Your task to perform on an android device: toggle show notifications on the lock screen Image 0: 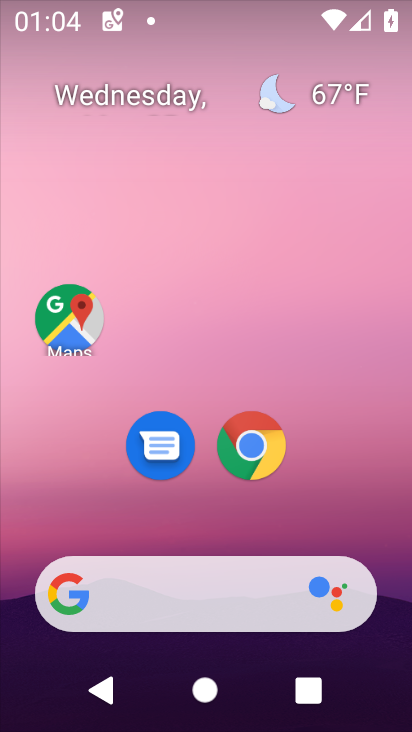
Step 0: drag from (369, 547) to (306, 107)
Your task to perform on an android device: toggle show notifications on the lock screen Image 1: 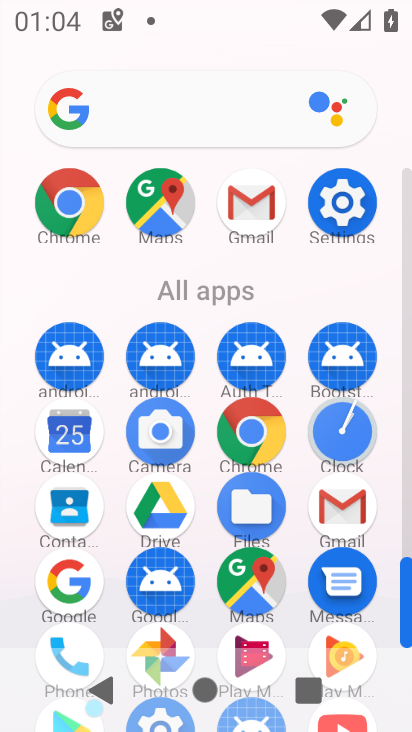
Step 1: click (349, 216)
Your task to perform on an android device: toggle show notifications on the lock screen Image 2: 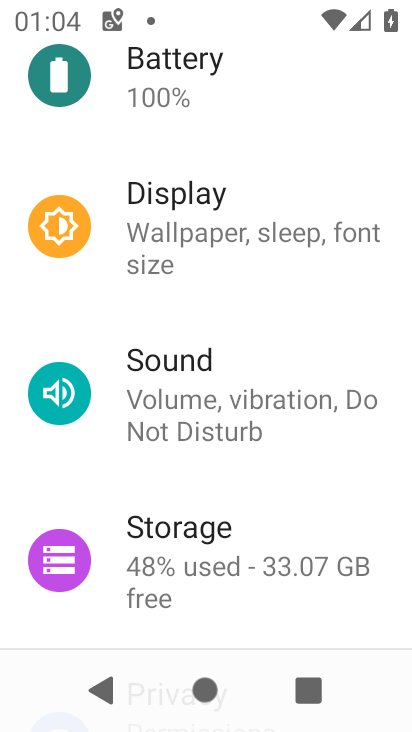
Step 2: drag from (300, 173) to (313, 530)
Your task to perform on an android device: toggle show notifications on the lock screen Image 3: 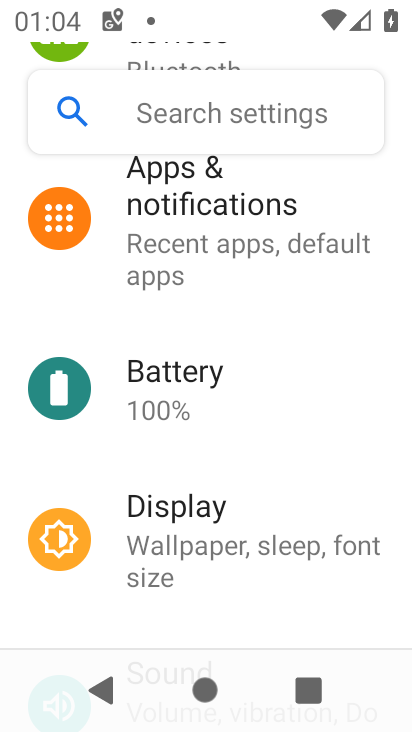
Step 3: drag from (266, 287) to (281, 576)
Your task to perform on an android device: toggle show notifications on the lock screen Image 4: 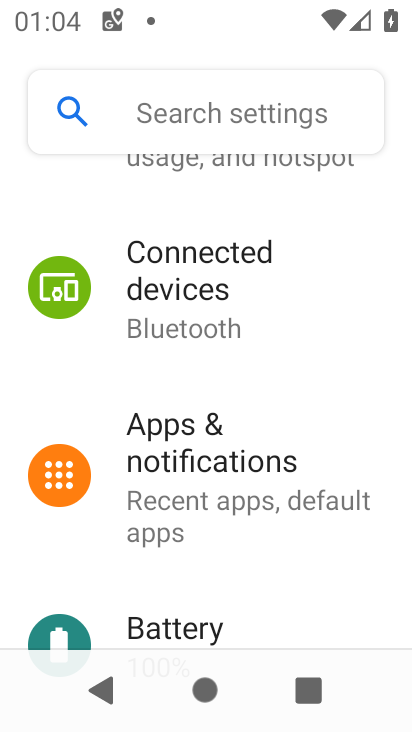
Step 4: drag from (243, 367) to (258, 628)
Your task to perform on an android device: toggle show notifications on the lock screen Image 5: 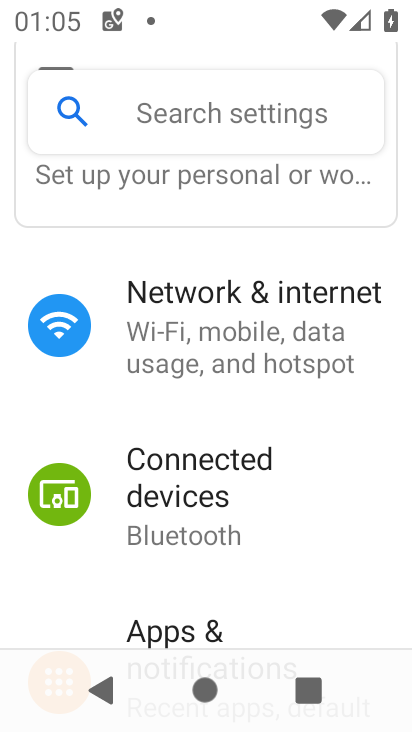
Step 5: drag from (245, 619) to (209, 424)
Your task to perform on an android device: toggle show notifications on the lock screen Image 6: 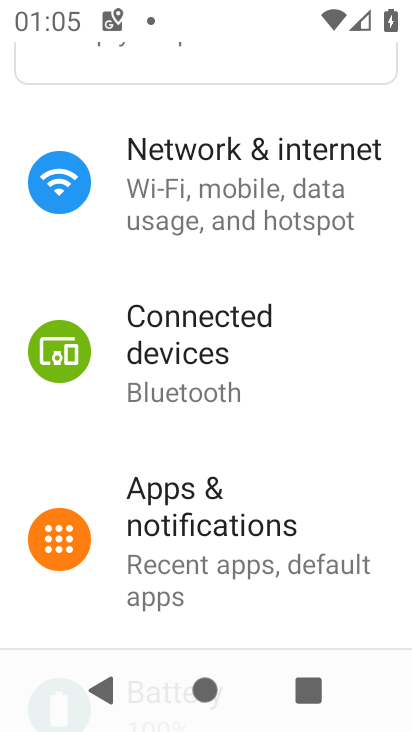
Step 6: click (242, 515)
Your task to perform on an android device: toggle show notifications on the lock screen Image 7: 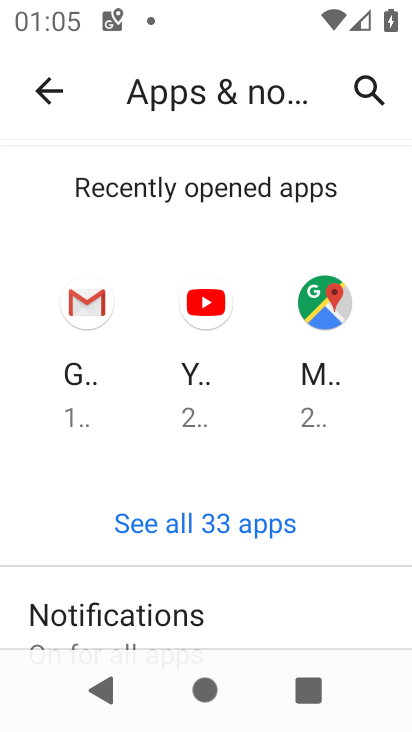
Step 7: drag from (279, 587) to (246, 305)
Your task to perform on an android device: toggle show notifications on the lock screen Image 8: 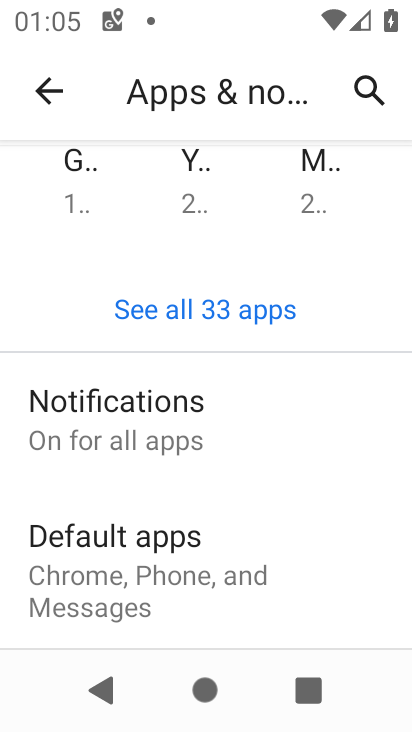
Step 8: click (252, 418)
Your task to perform on an android device: toggle show notifications on the lock screen Image 9: 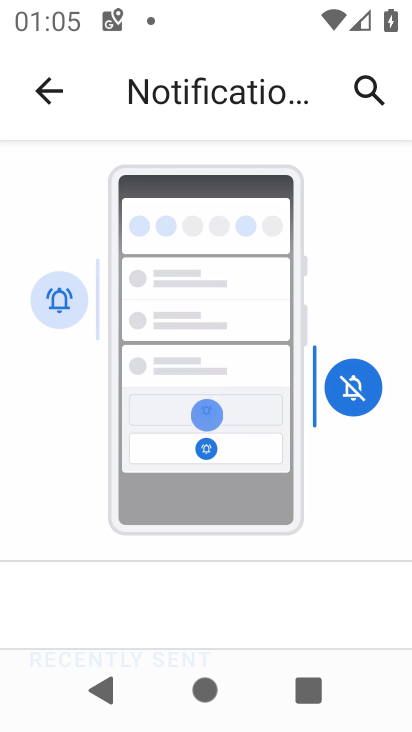
Step 9: drag from (286, 588) to (226, 263)
Your task to perform on an android device: toggle show notifications on the lock screen Image 10: 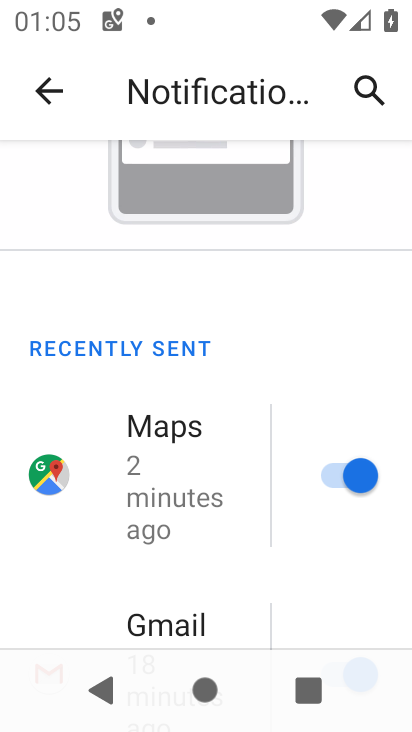
Step 10: drag from (263, 603) to (196, 223)
Your task to perform on an android device: toggle show notifications on the lock screen Image 11: 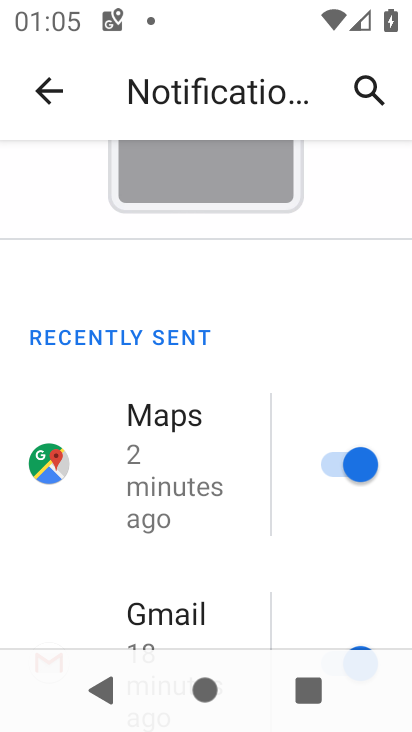
Step 11: drag from (265, 598) to (234, 293)
Your task to perform on an android device: toggle show notifications on the lock screen Image 12: 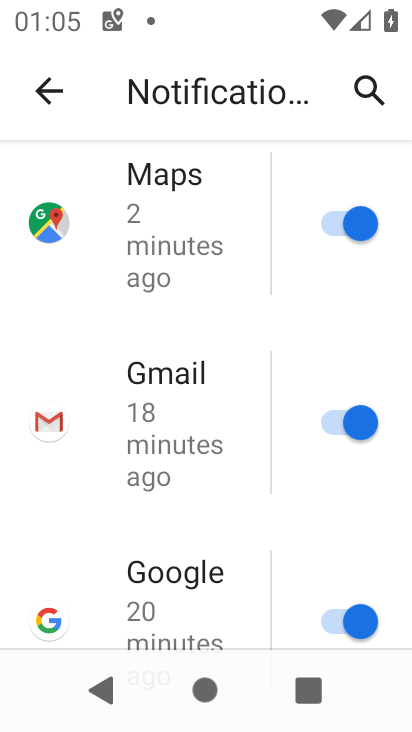
Step 12: drag from (292, 522) to (228, 48)
Your task to perform on an android device: toggle show notifications on the lock screen Image 13: 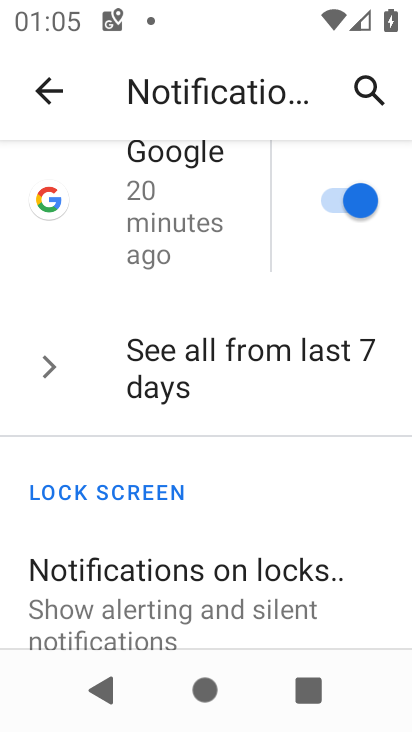
Step 13: click (300, 584)
Your task to perform on an android device: toggle show notifications on the lock screen Image 14: 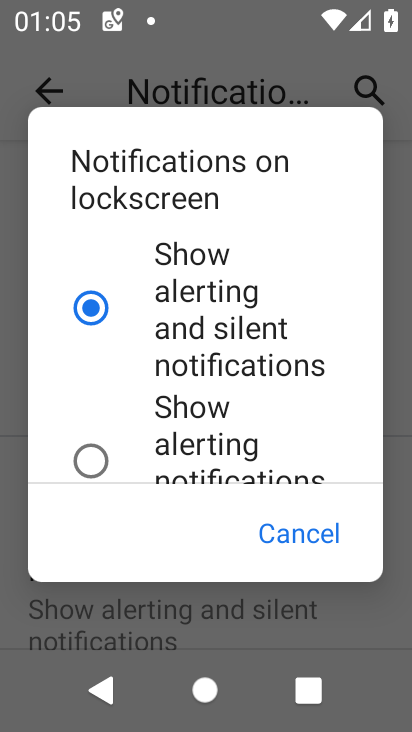
Step 14: click (208, 450)
Your task to perform on an android device: toggle show notifications on the lock screen Image 15: 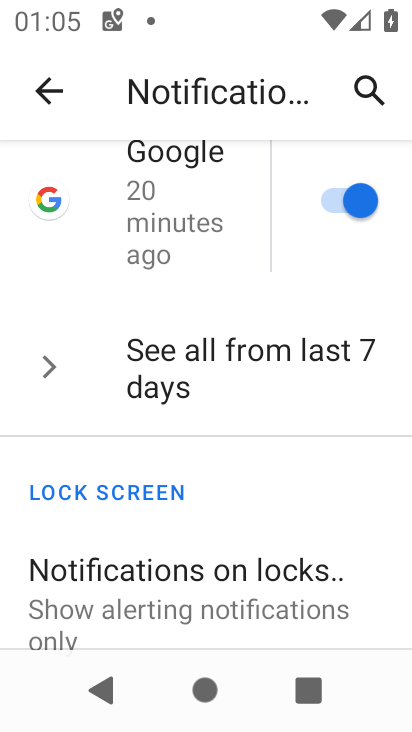
Step 15: task complete